Your task to perform on an android device: Is it going to rain tomorrow? Image 0: 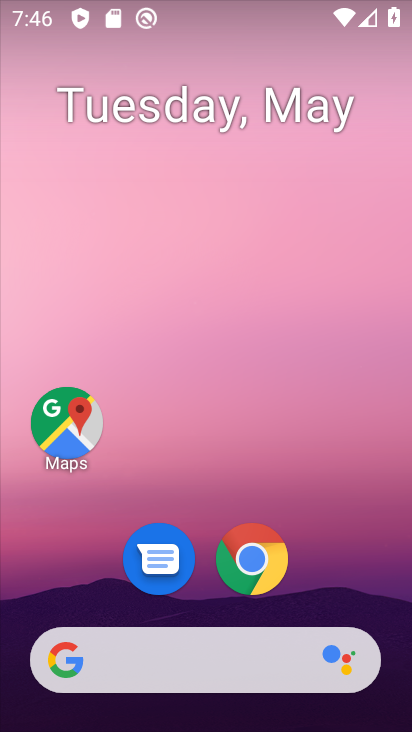
Step 0: click (193, 666)
Your task to perform on an android device: Is it going to rain tomorrow? Image 1: 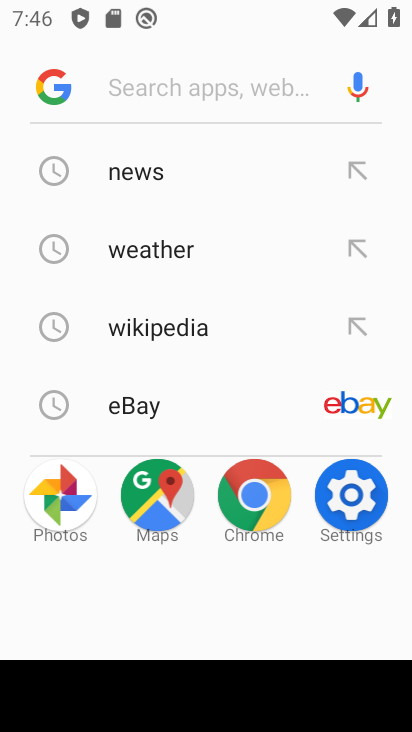
Step 1: click (162, 259)
Your task to perform on an android device: Is it going to rain tomorrow? Image 2: 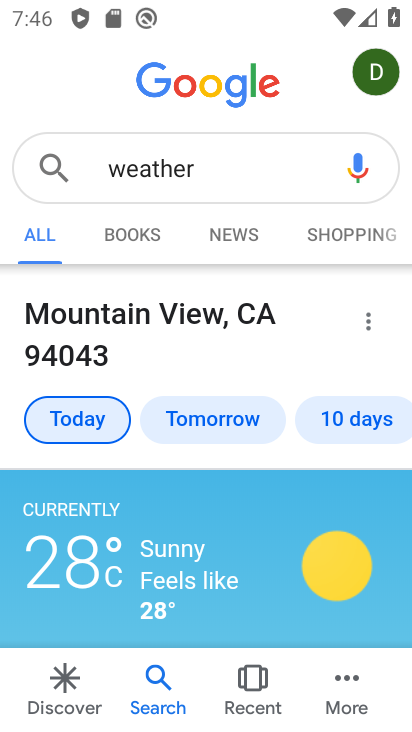
Step 2: click (216, 420)
Your task to perform on an android device: Is it going to rain tomorrow? Image 3: 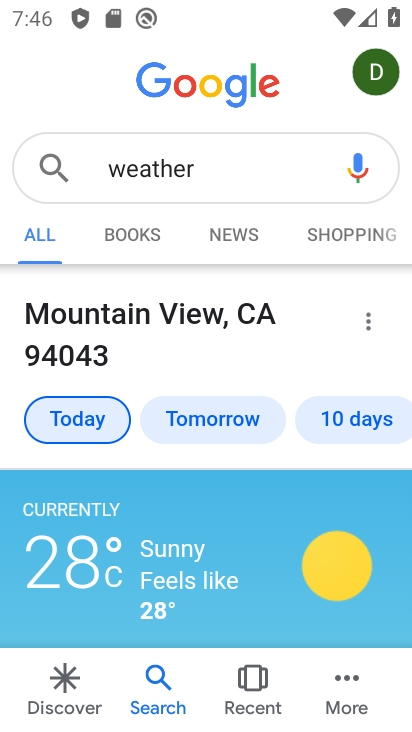
Step 3: click (245, 408)
Your task to perform on an android device: Is it going to rain tomorrow? Image 4: 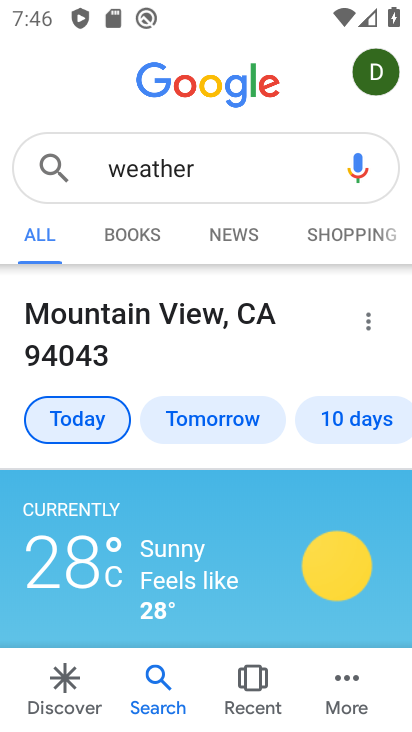
Step 4: click (205, 412)
Your task to perform on an android device: Is it going to rain tomorrow? Image 5: 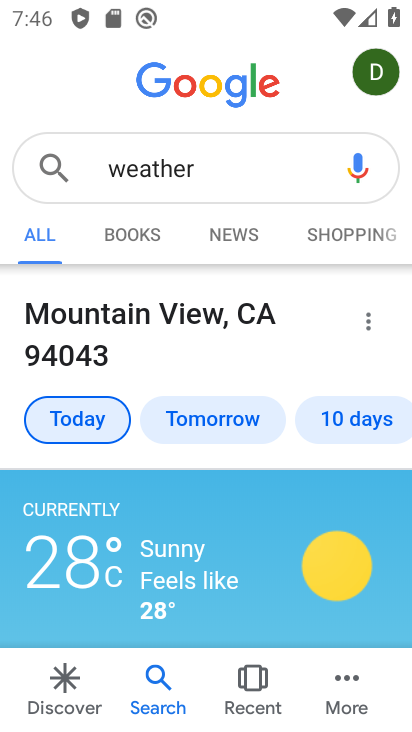
Step 5: click (250, 420)
Your task to perform on an android device: Is it going to rain tomorrow? Image 6: 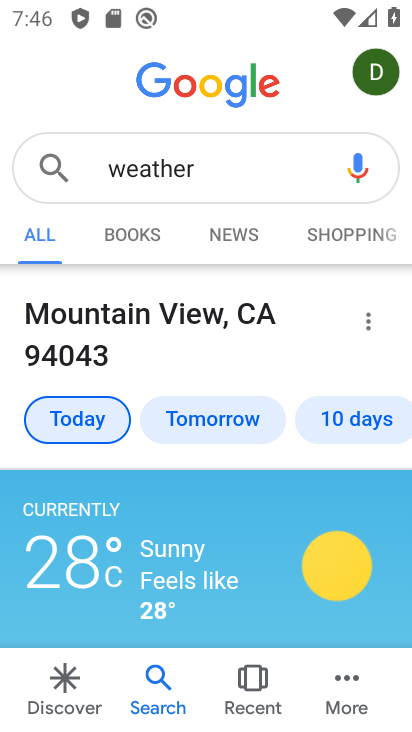
Step 6: click (224, 425)
Your task to perform on an android device: Is it going to rain tomorrow? Image 7: 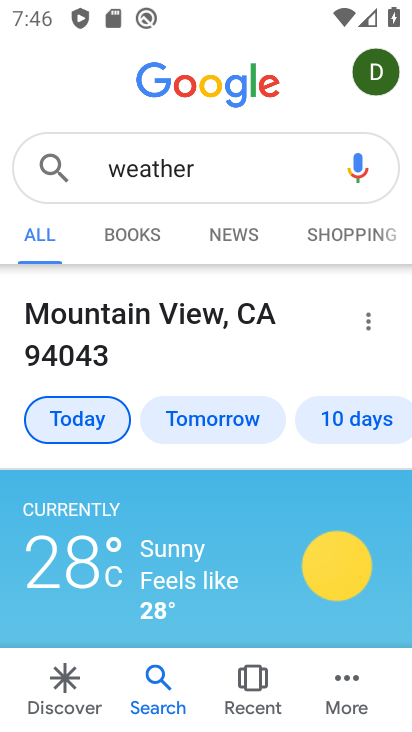
Step 7: task complete